Your task to perform on an android device: Go to display settings Image 0: 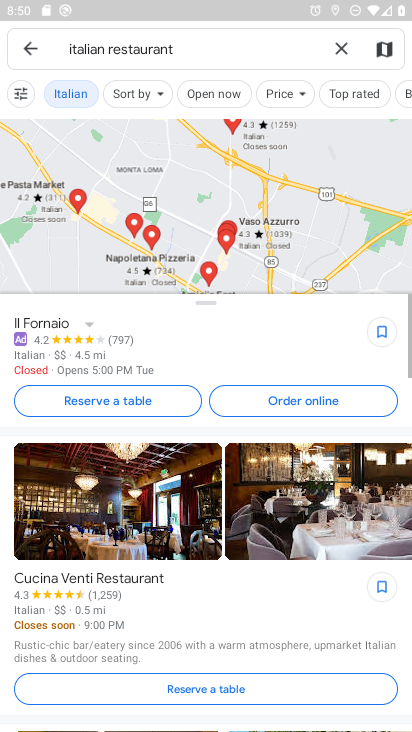
Step 0: press home button
Your task to perform on an android device: Go to display settings Image 1: 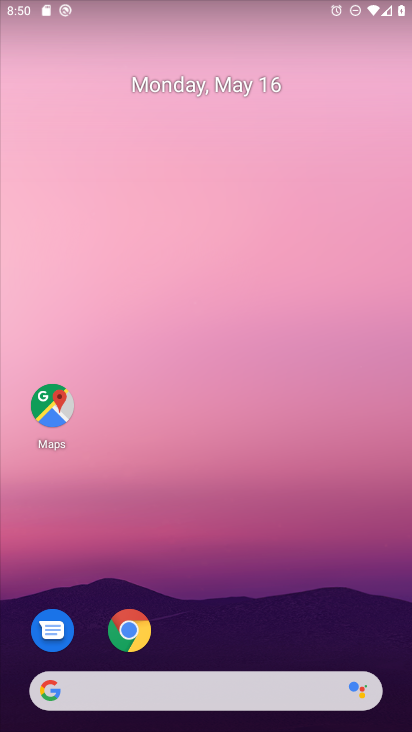
Step 1: drag from (199, 605) to (250, 164)
Your task to perform on an android device: Go to display settings Image 2: 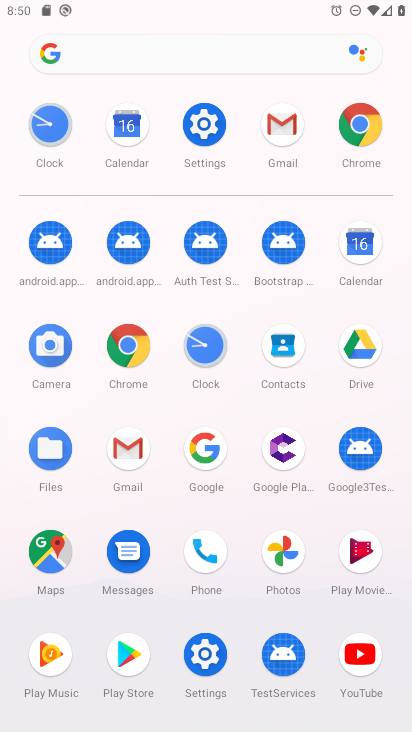
Step 2: click (199, 135)
Your task to perform on an android device: Go to display settings Image 3: 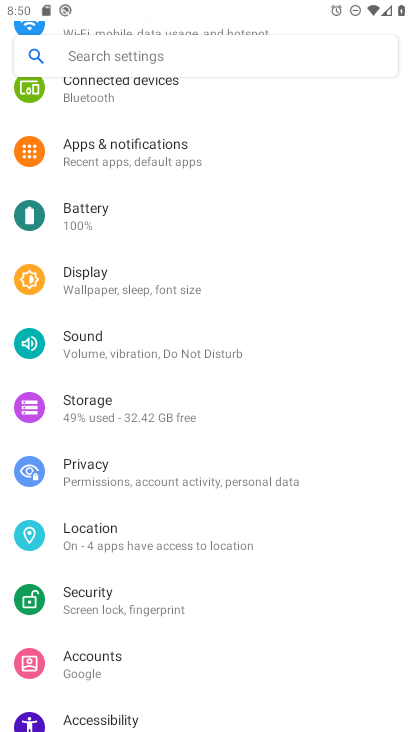
Step 3: click (90, 296)
Your task to perform on an android device: Go to display settings Image 4: 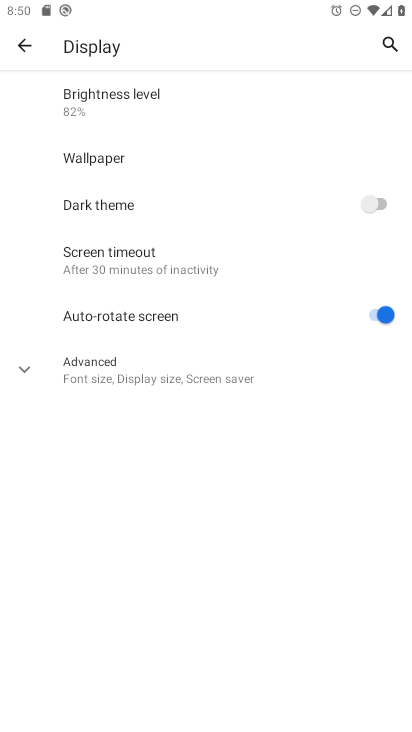
Step 4: task complete